Your task to perform on an android device: check storage Image 0: 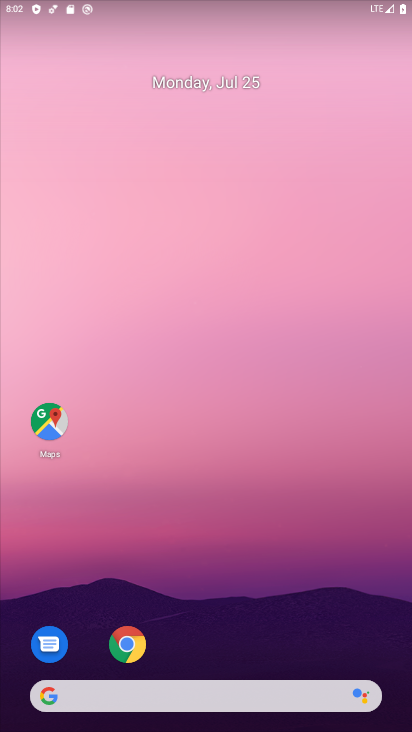
Step 0: drag from (233, 620) to (238, 178)
Your task to perform on an android device: check storage Image 1: 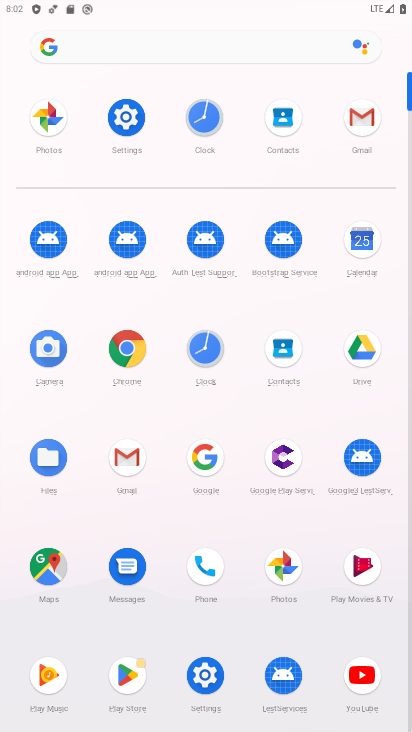
Step 1: click (127, 118)
Your task to perform on an android device: check storage Image 2: 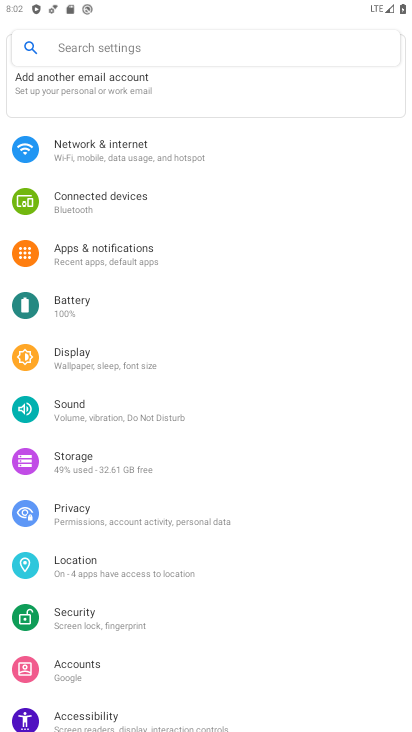
Step 2: click (75, 459)
Your task to perform on an android device: check storage Image 3: 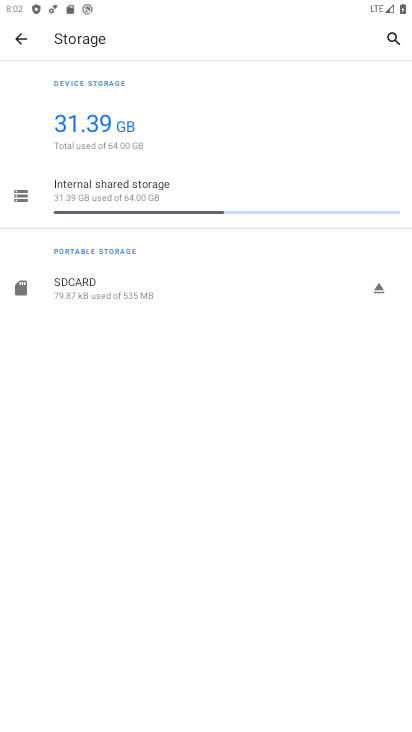
Step 3: task complete